Your task to perform on an android device: Is it going to rain today? Image 0: 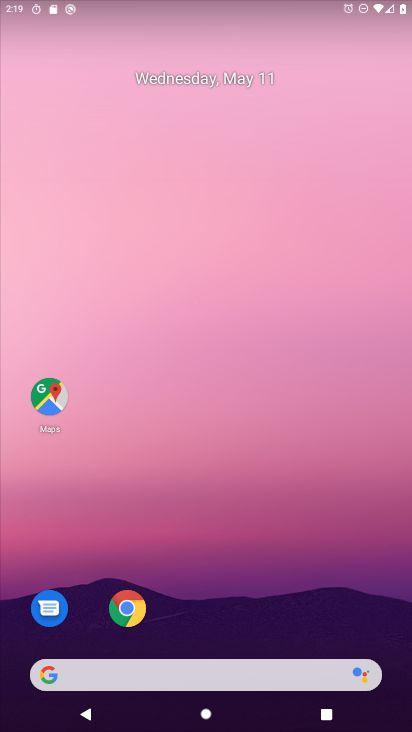
Step 0: drag from (257, 628) to (226, 45)
Your task to perform on an android device: Is it going to rain today? Image 1: 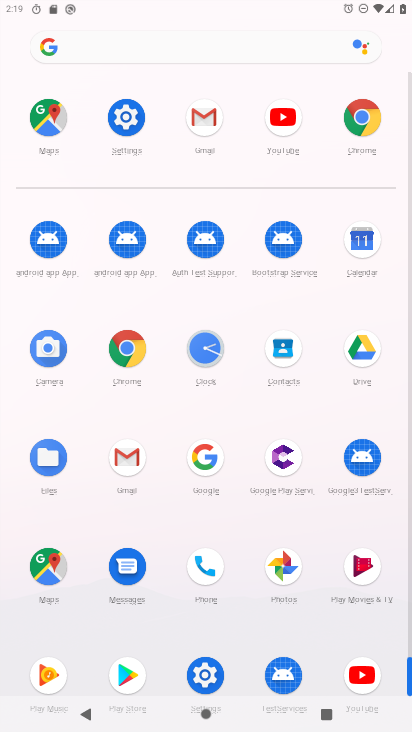
Step 1: click (213, 480)
Your task to perform on an android device: Is it going to rain today? Image 2: 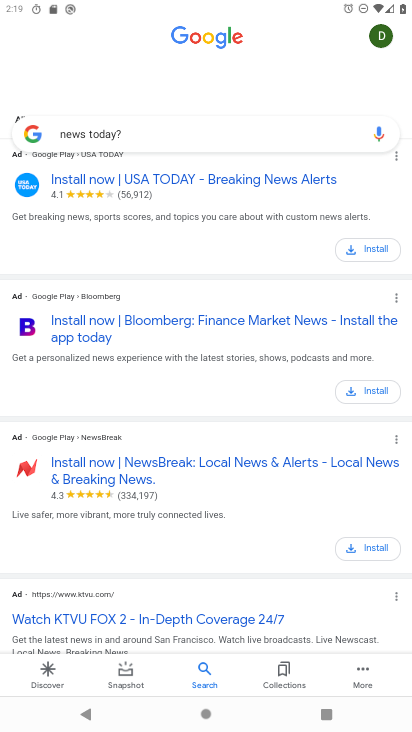
Step 2: click (238, 131)
Your task to perform on an android device: Is it going to rain today? Image 3: 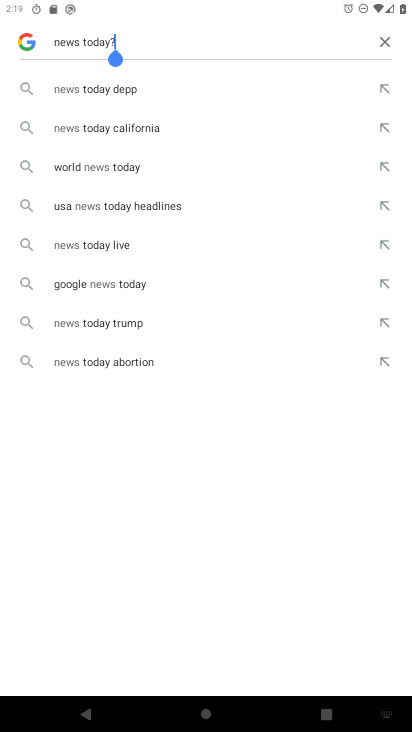
Step 3: click (383, 40)
Your task to perform on an android device: Is it going to rain today? Image 4: 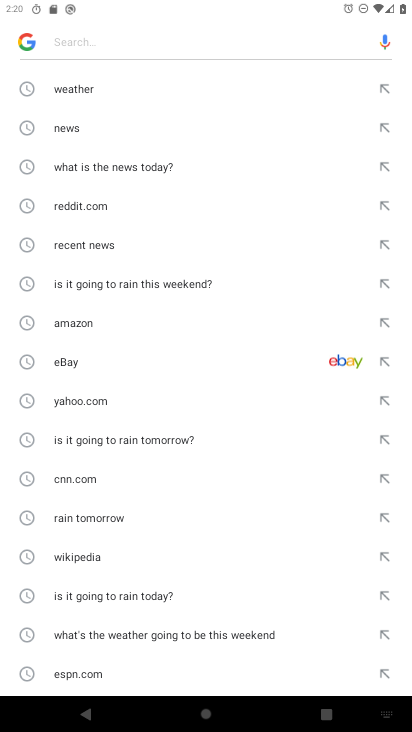
Step 4: click (141, 94)
Your task to perform on an android device: Is it going to rain today? Image 5: 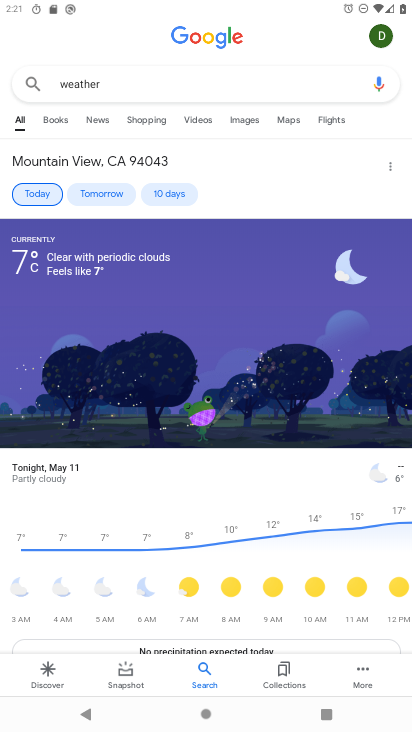
Step 5: task complete